Your task to perform on an android device: open wifi settings Image 0: 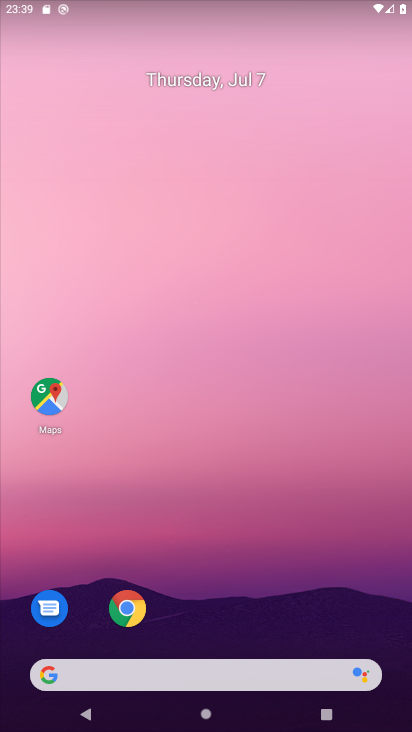
Step 0: drag from (260, 688) to (242, 198)
Your task to perform on an android device: open wifi settings Image 1: 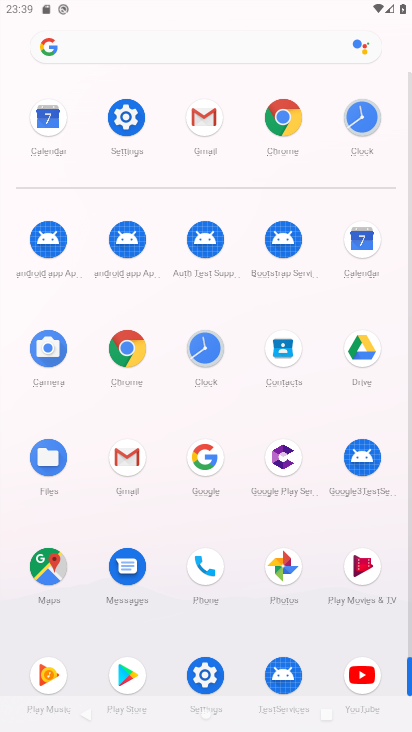
Step 1: click (126, 105)
Your task to perform on an android device: open wifi settings Image 2: 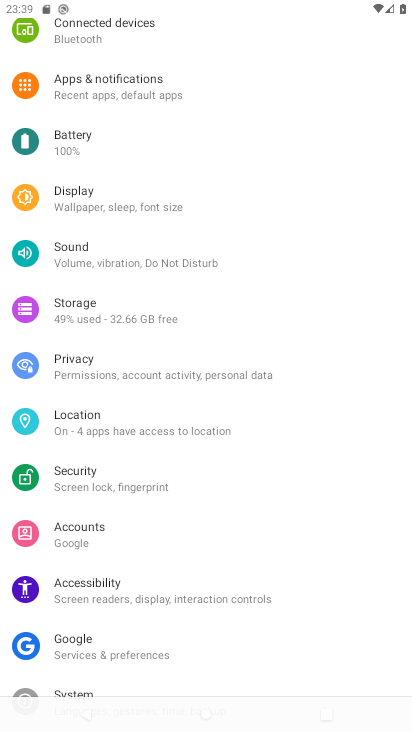
Step 2: drag from (152, 67) to (233, 454)
Your task to perform on an android device: open wifi settings Image 3: 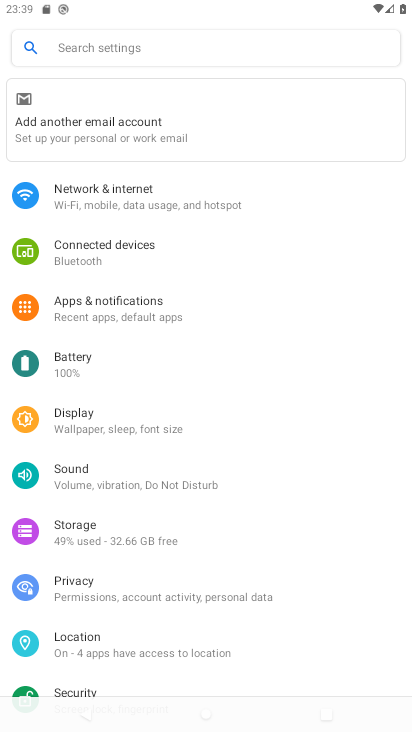
Step 3: click (164, 169)
Your task to perform on an android device: open wifi settings Image 4: 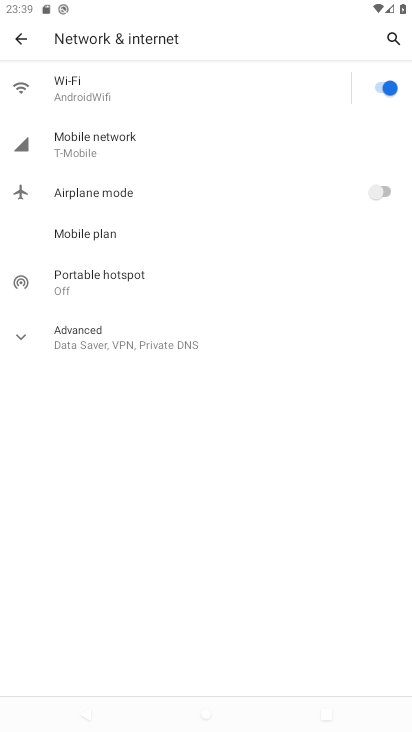
Step 4: click (108, 85)
Your task to perform on an android device: open wifi settings Image 5: 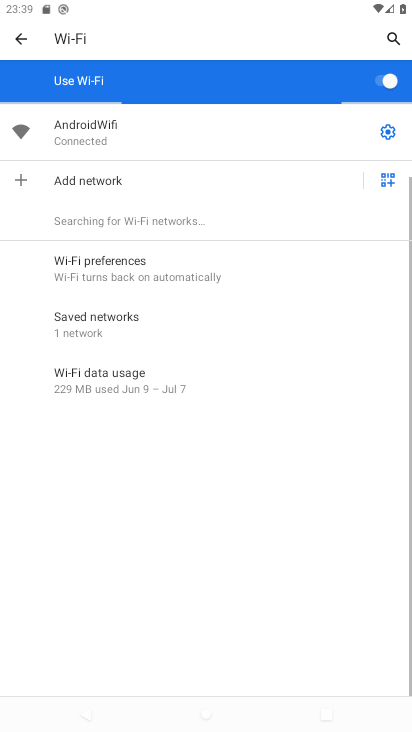
Step 5: task complete